Your task to perform on an android device: open app "Clock" (install if not already installed) Image 0: 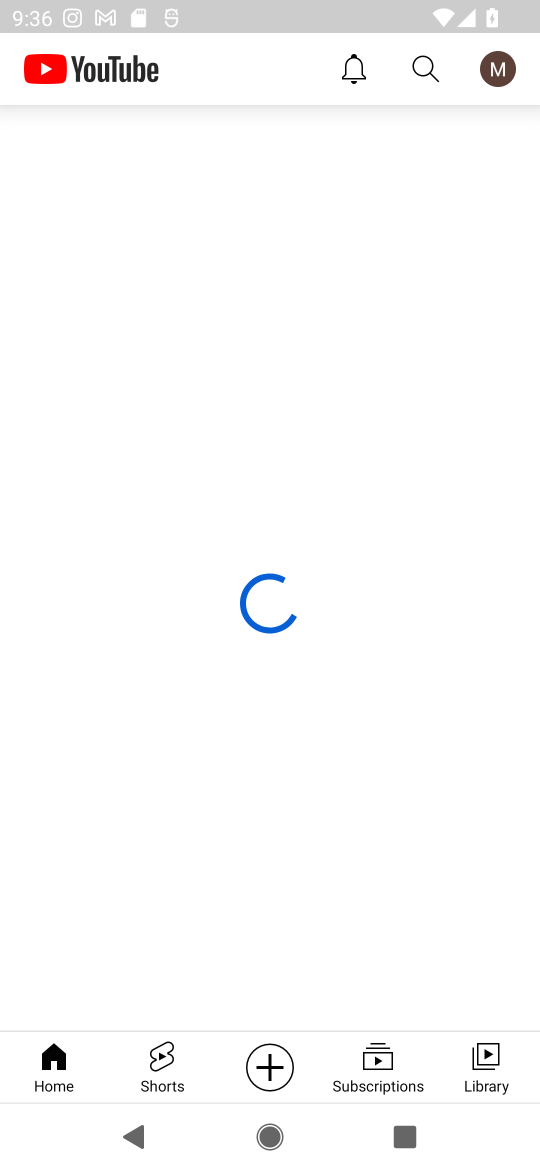
Step 0: press home button
Your task to perform on an android device: open app "Clock" (install if not already installed) Image 1: 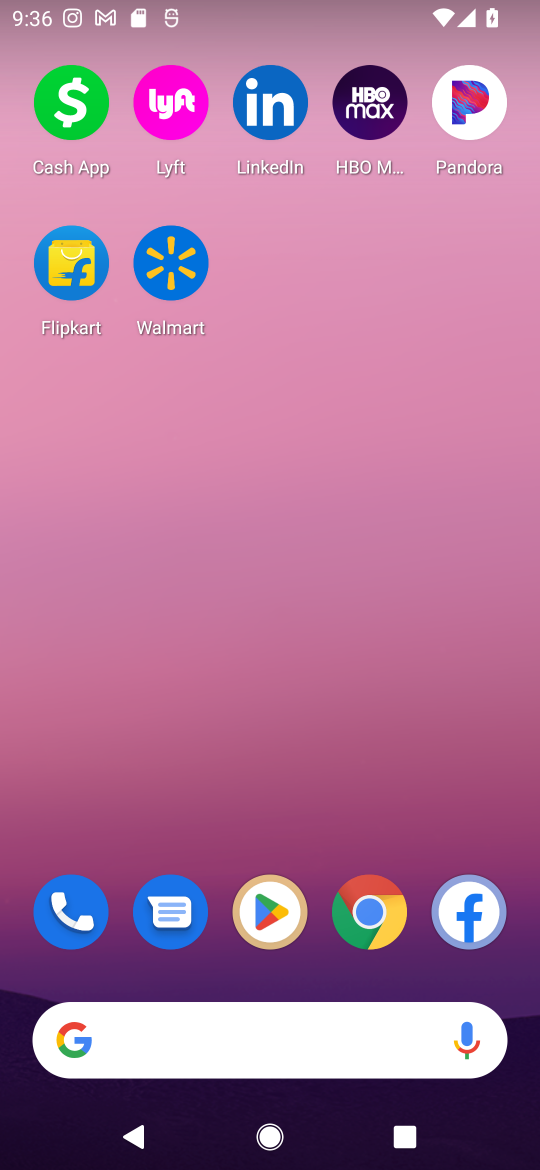
Step 1: click (270, 915)
Your task to perform on an android device: open app "Clock" (install if not already installed) Image 2: 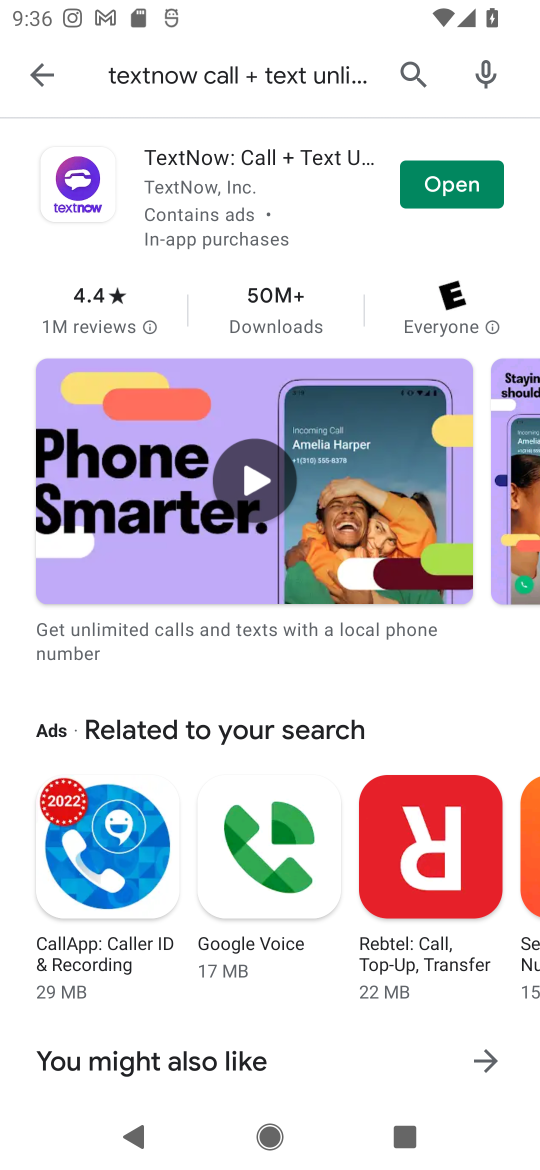
Step 2: click (410, 63)
Your task to perform on an android device: open app "Clock" (install if not already installed) Image 3: 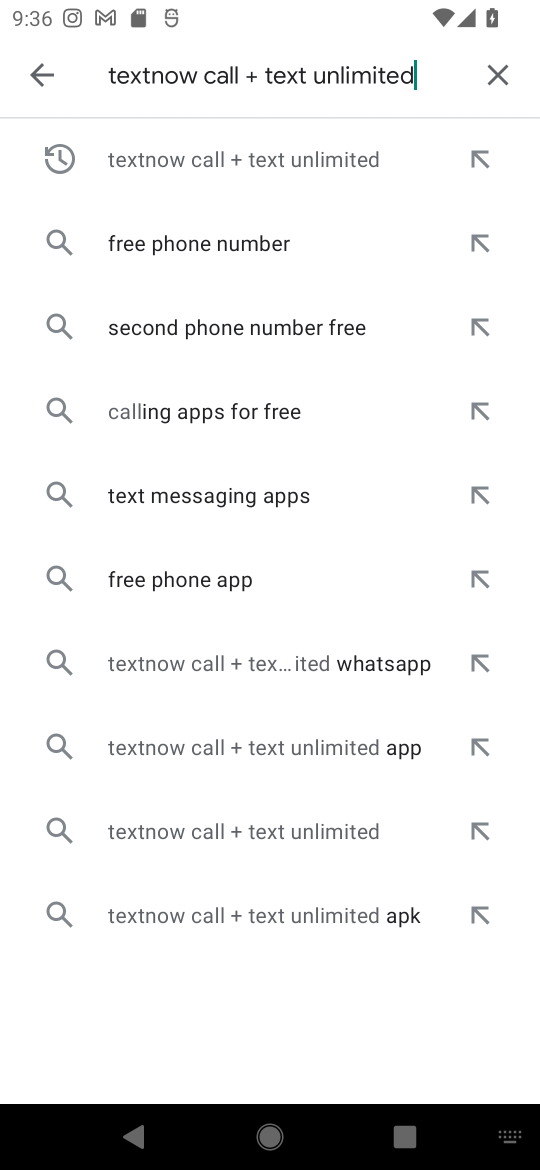
Step 3: click (492, 64)
Your task to perform on an android device: open app "Clock" (install if not already installed) Image 4: 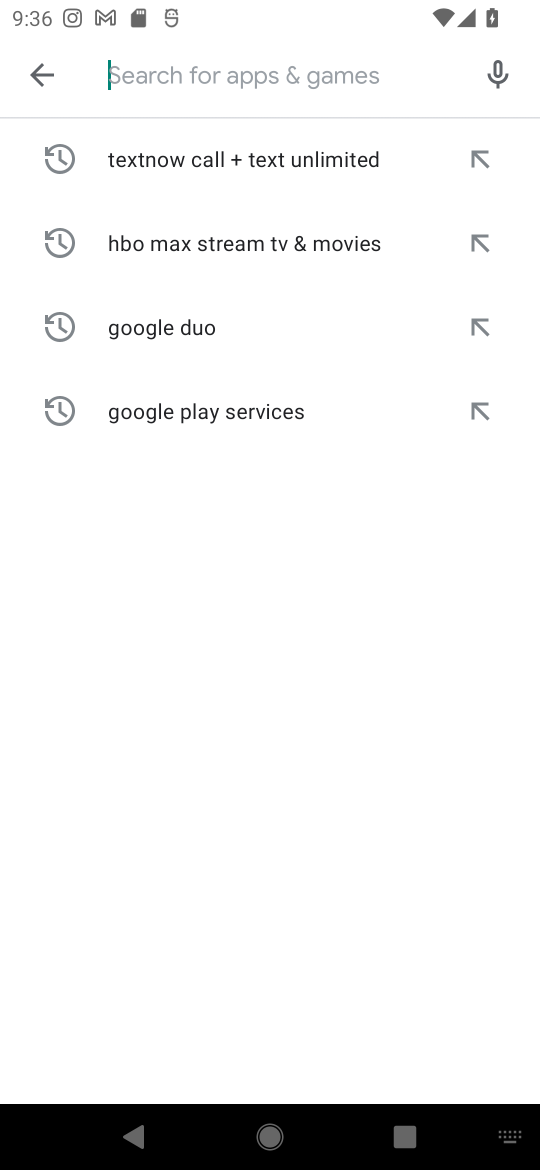
Step 4: type "Clock"
Your task to perform on an android device: open app "Clock" (install if not already installed) Image 5: 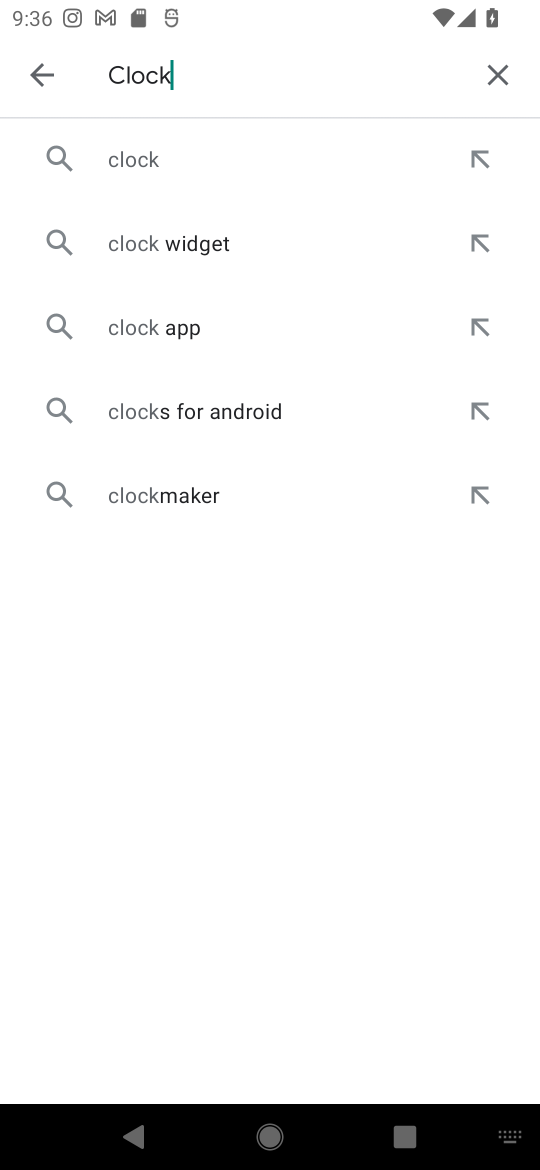
Step 5: click (116, 160)
Your task to perform on an android device: open app "Clock" (install if not already installed) Image 6: 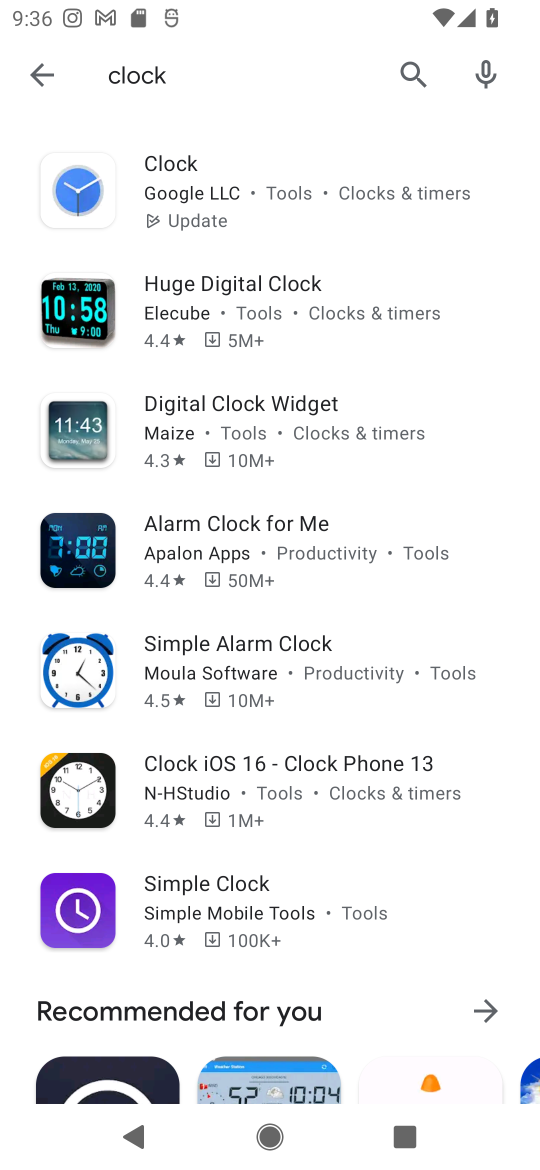
Step 6: click (158, 164)
Your task to perform on an android device: open app "Clock" (install if not already installed) Image 7: 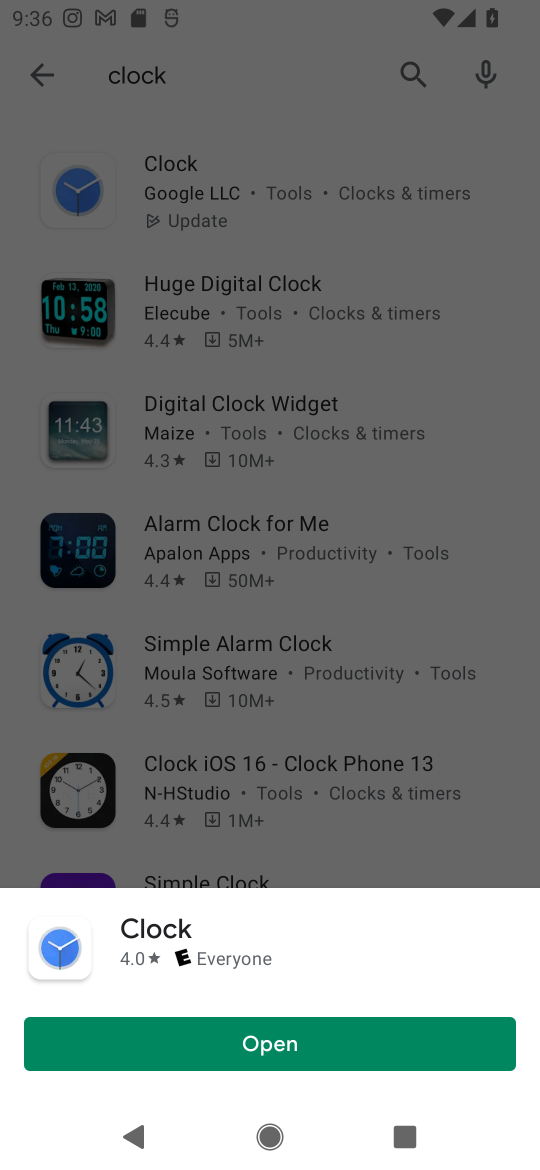
Step 7: click (275, 1038)
Your task to perform on an android device: open app "Clock" (install if not already installed) Image 8: 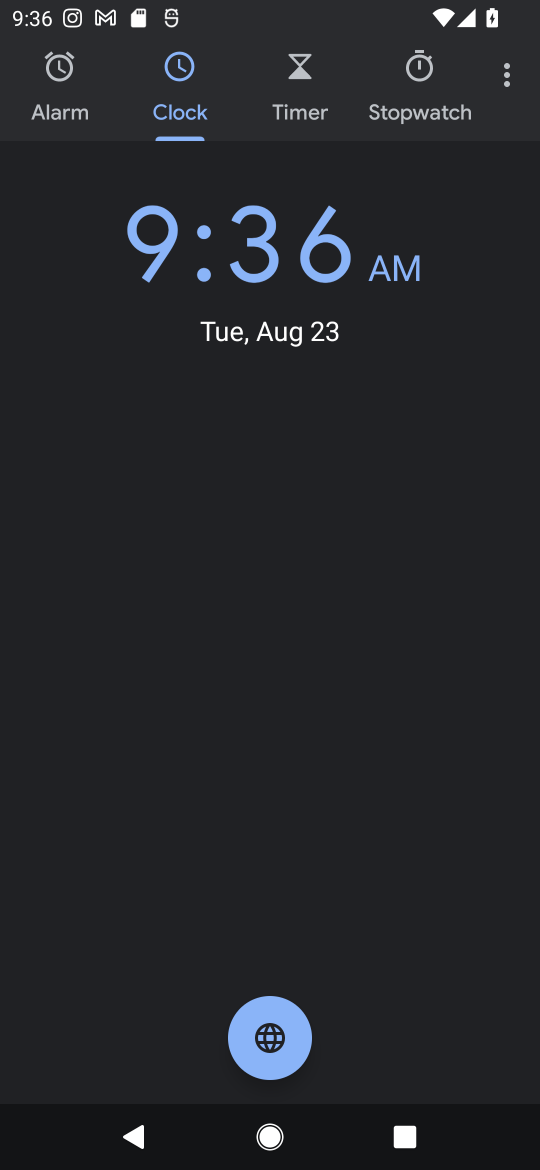
Step 8: task complete